Your task to perform on an android device: Open Reddit.com Image 0: 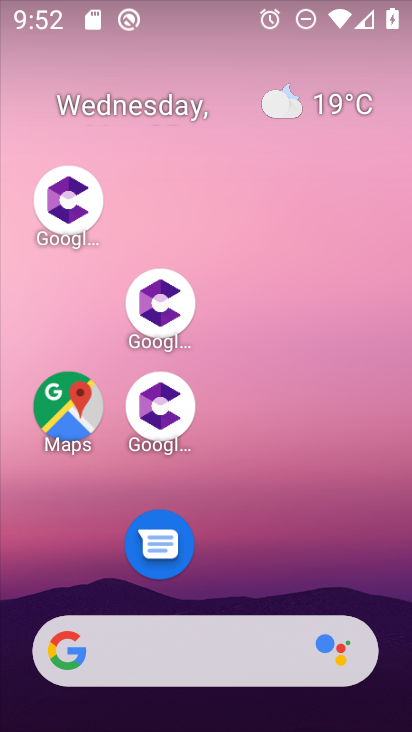
Step 0: drag from (257, 518) to (238, 53)
Your task to perform on an android device: Open Reddit.com Image 1: 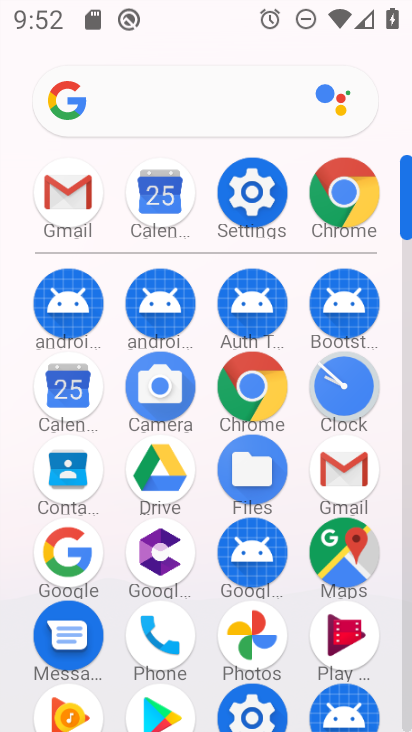
Step 1: click (334, 200)
Your task to perform on an android device: Open Reddit.com Image 2: 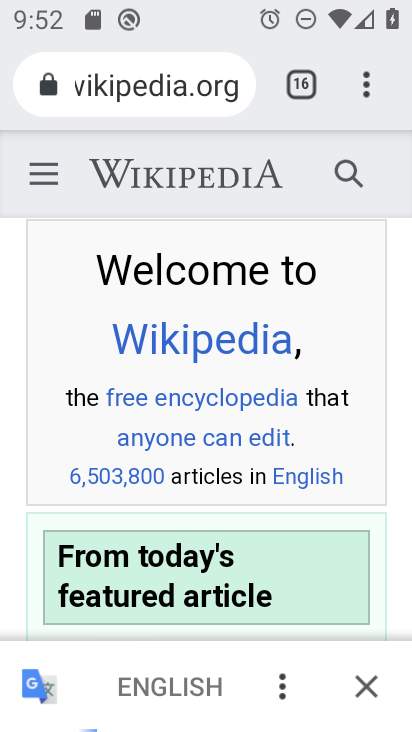
Step 2: click (366, 82)
Your task to perform on an android device: Open Reddit.com Image 3: 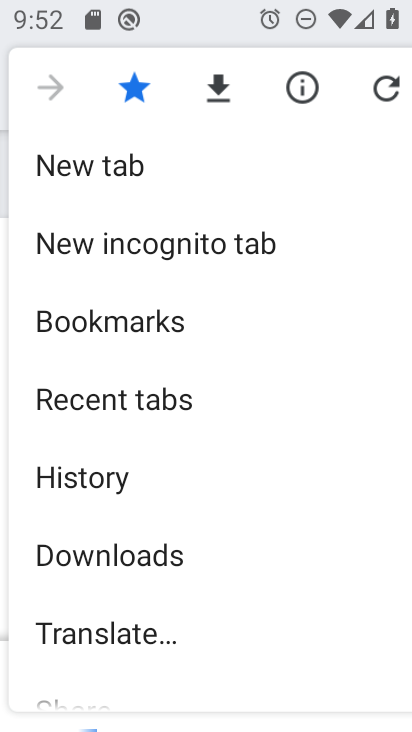
Step 3: click (123, 165)
Your task to perform on an android device: Open Reddit.com Image 4: 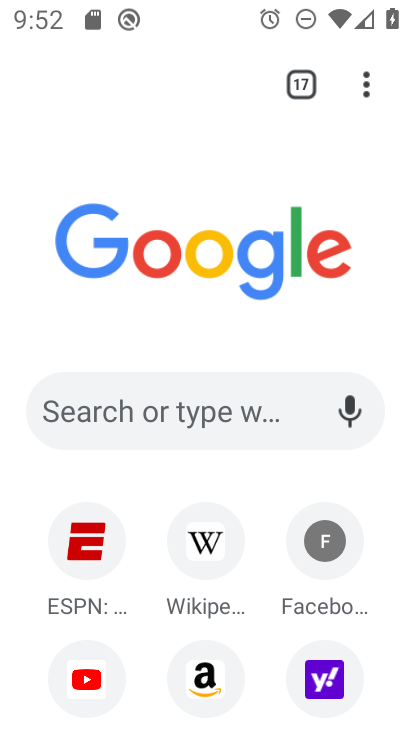
Step 4: drag from (253, 629) to (205, 303)
Your task to perform on an android device: Open Reddit.com Image 5: 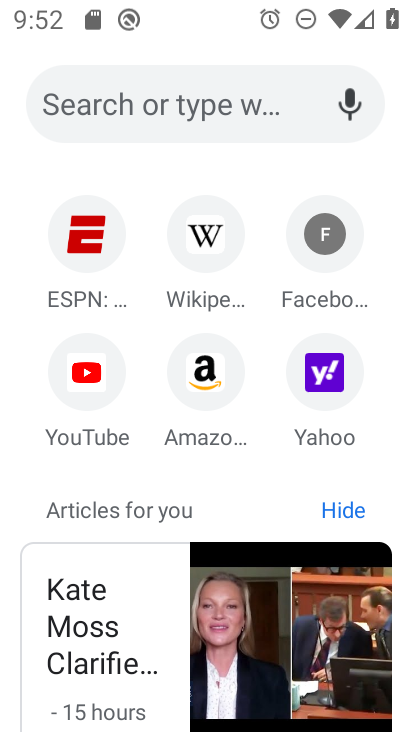
Step 5: click (157, 90)
Your task to perform on an android device: Open Reddit.com Image 6: 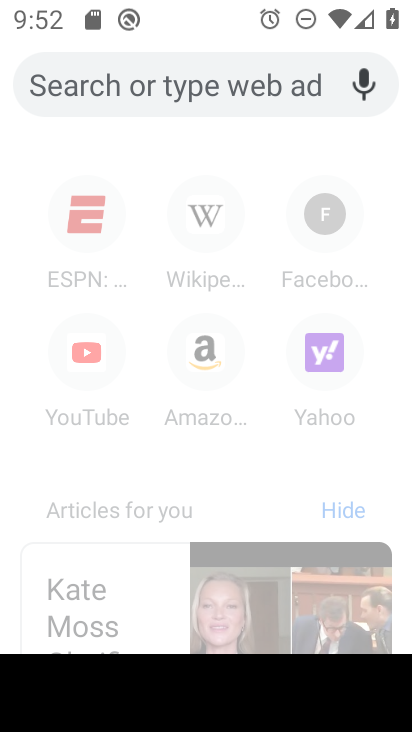
Step 6: type "reddit.com"
Your task to perform on an android device: Open Reddit.com Image 7: 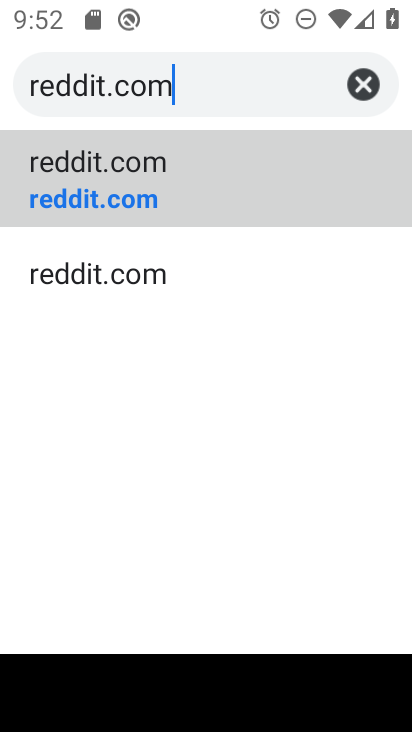
Step 7: click (74, 176)
Your task to perform on an android device: Open Reddit.com Image 8: 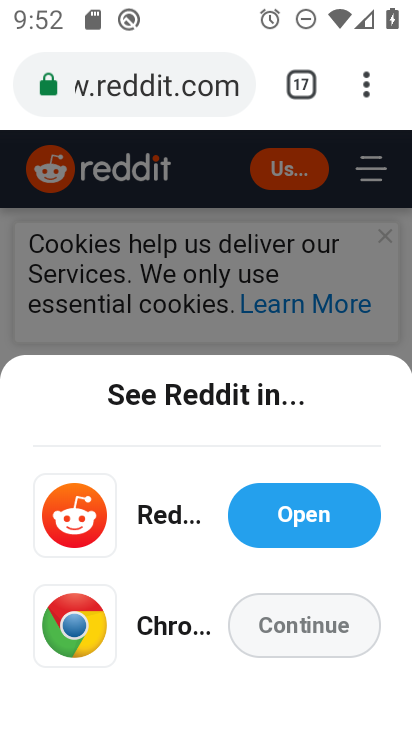
Step 8: click (307, 614)
Your task to perform on an android device: Open Reddit.com Image 9: 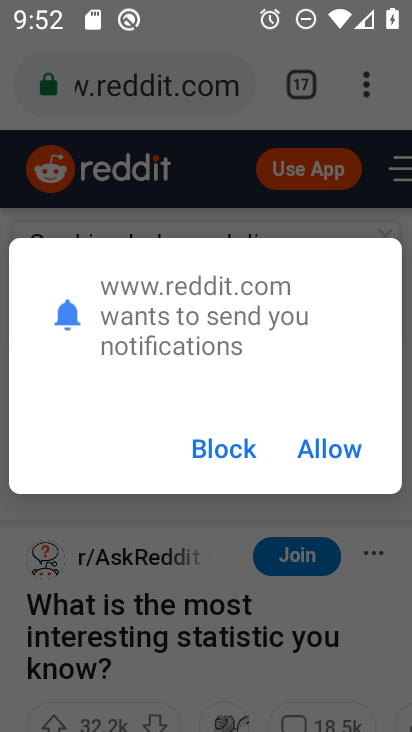
Step 9: click (325, 447)
Your task to perform on an android device: Open Reddit.com Image 10: 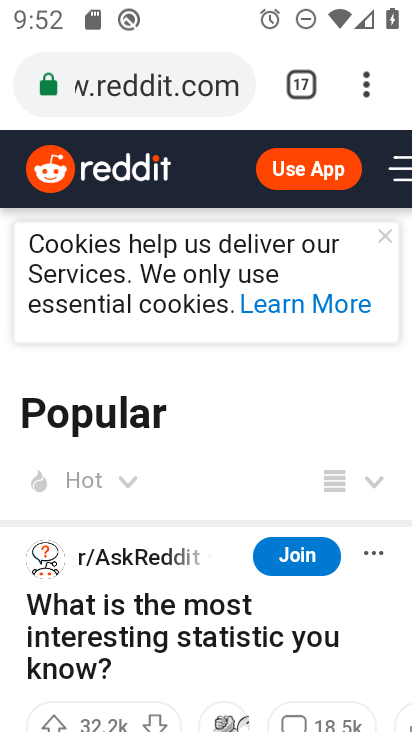
Step 10: task complete